Your task to perform on an android device: Open the calendar and show me this week's events Image 0: 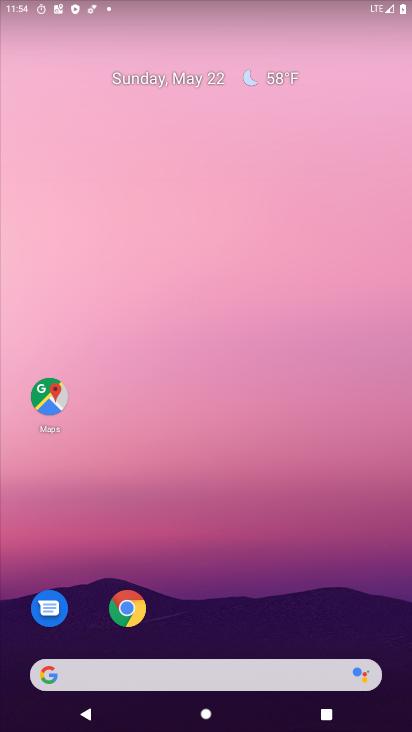
Step 0: drag from (229, 603) to (219, 154)
Your task to perform on an android device: Open the calendar and show me this week's events Image 1: 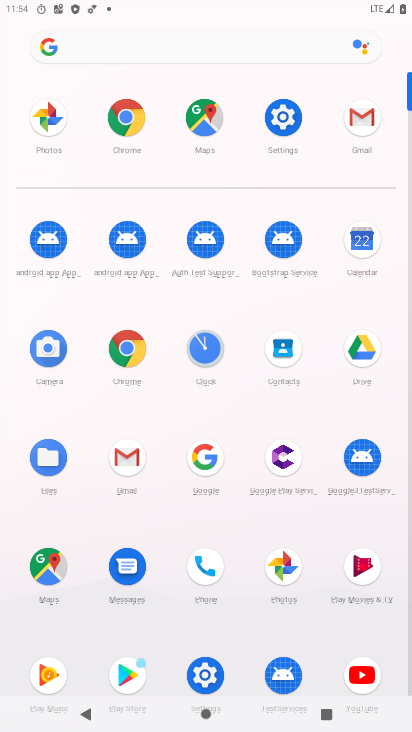
Step 1: click (352, 251)
Your task to perform on an android device: Open the calendar and show me this week's events Image 2: 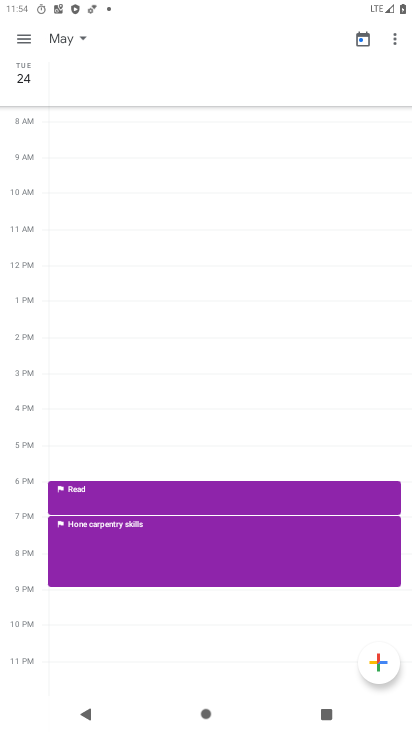
Step 2: click (22, 42)
Your task to perform on an android device: Open the calendar and show me this week's events Image 3: 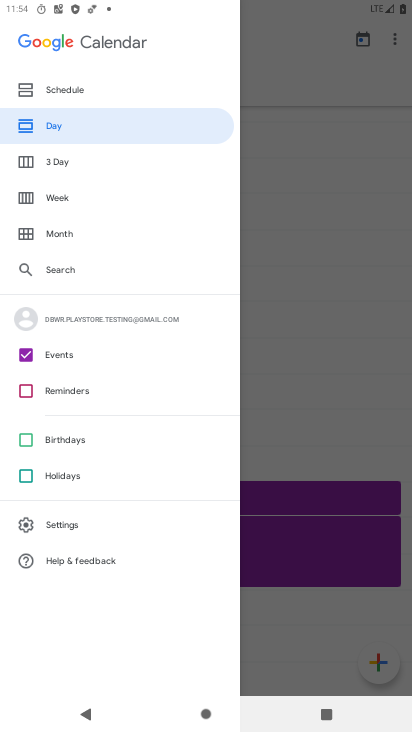
Step 3: click (68, 202)
Your task to perform on an android device: Open the calendar and show me this week's events Image 4: 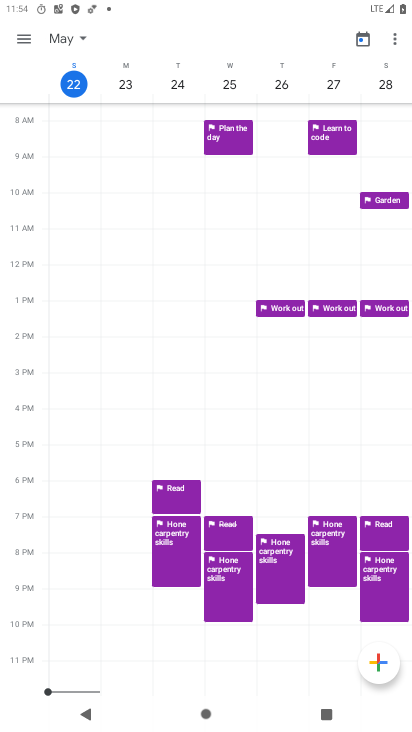
Step 4: task complete